Your task to perform on an android device: find which apps use the phone's location Image 0: 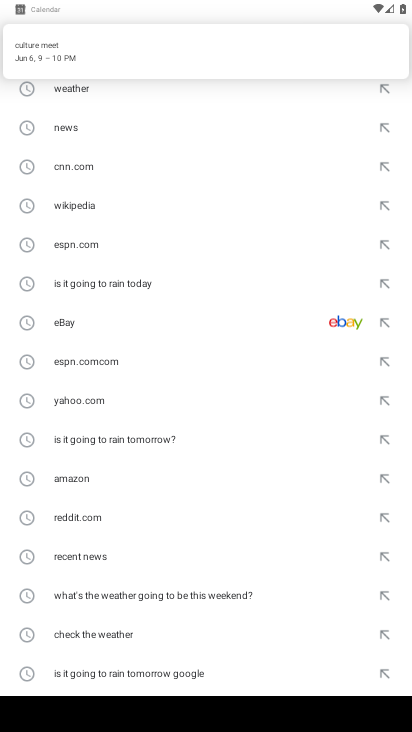
Step 0: press home button
Your task to perform on an android device: find which apps use the phone's location Image 1: 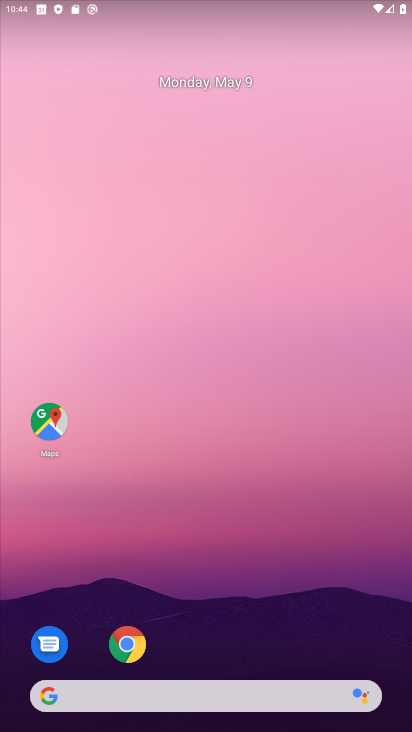
Step 1: drag from (199, 644) to (247, 102)
Your task to perform on an android device: find which apps use the phone's location Image 2: 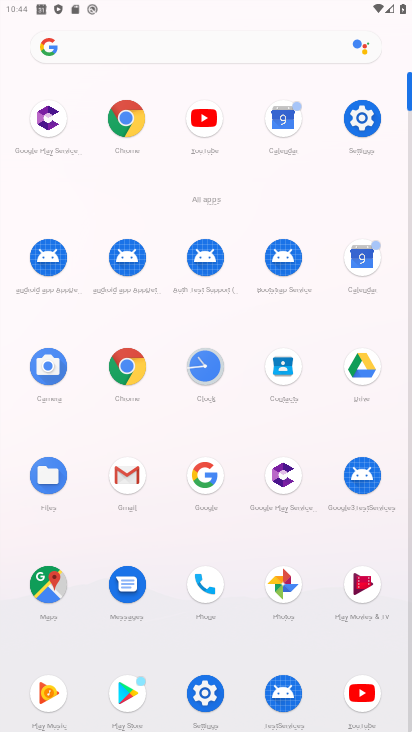
Step 2: click (202, 690)
Your task to perform on an android device: find which apps use the phone's location Image 3: 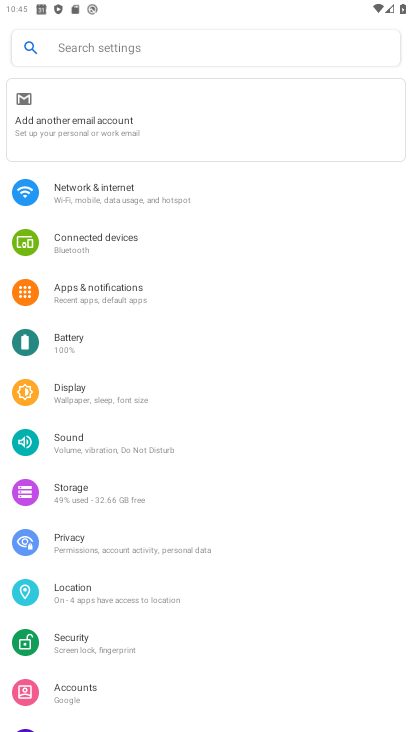
Step 3: click (97, 595)
Your task to perform on an android device: find which apps use the phone's location Image 4: 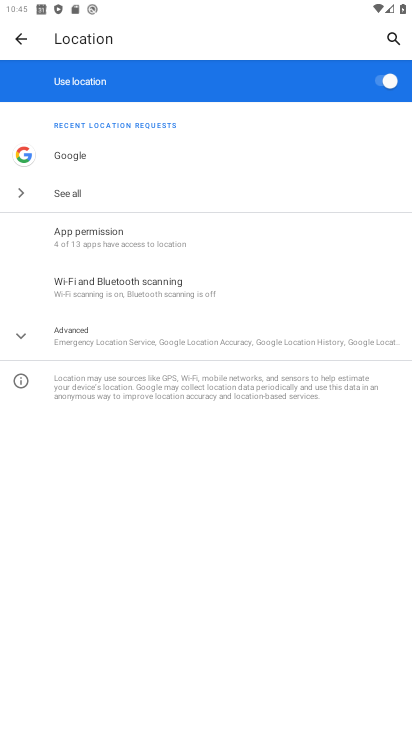
Step 4: click (110, 243)
Your task to perform on an android device: find which apps use the phone's location Image 5: 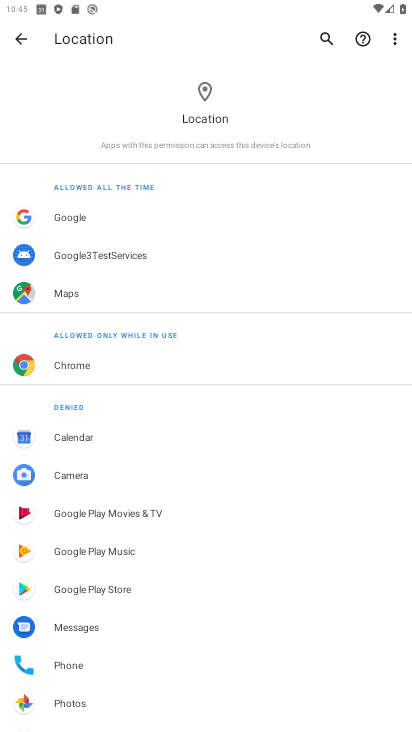
Step 5: task complete